Your task to perform on an android device: delete the emails in spam in the gmail app Image 0: 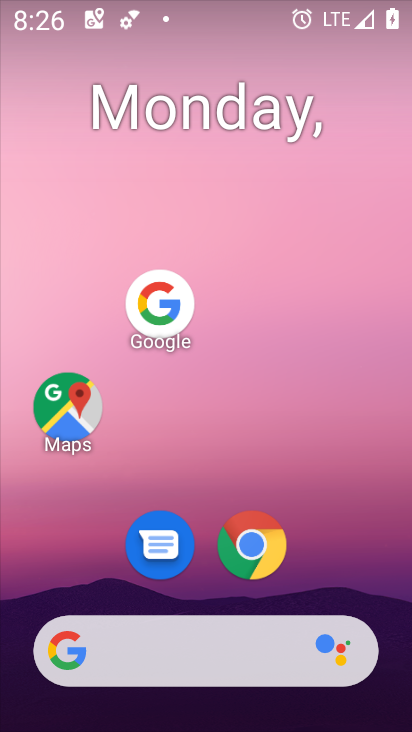
Step 0: drag from (167, 666) to (323, 167)
Your task to perform on an android device: delete the emails in spam in the gmail app Image 1: 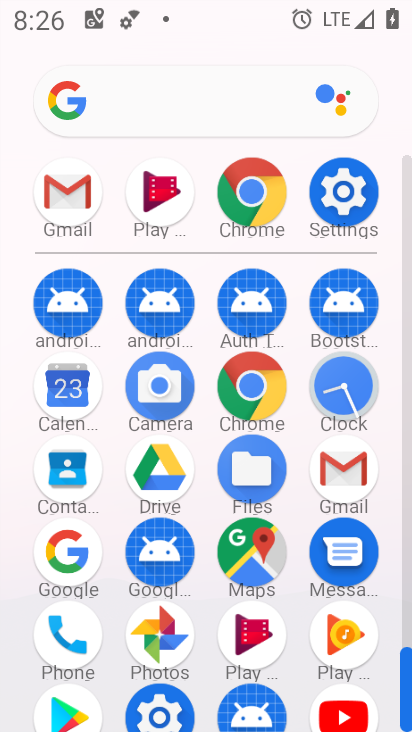
Step 1: click (75, 190)
Your task to perform on an android device: delete the emails in spam in the gmail app Image 2: 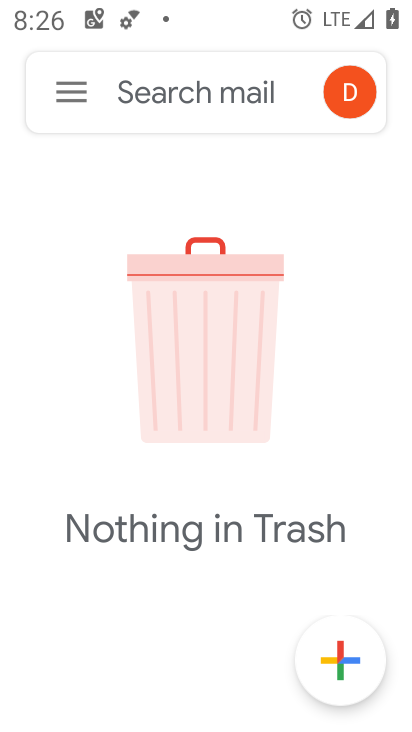
Step 2: click (71, 92)
Your task to perform on an android device: delete the emails in spam in the gmail app Image 3: 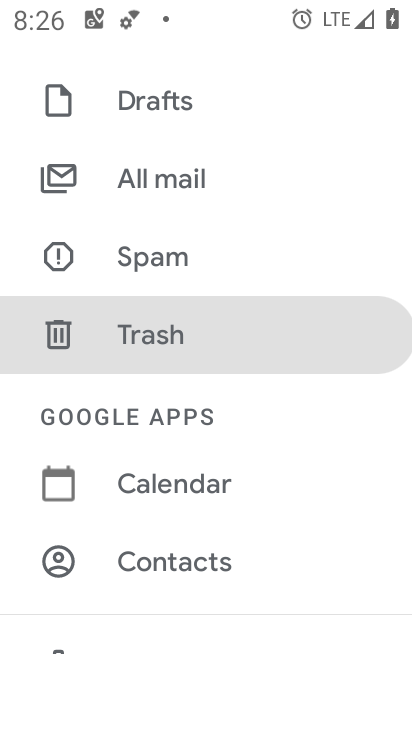
Step 3: click (146, 257)
Your task to perform on an android device: delete the emails in spam in the gmail app Image 4: 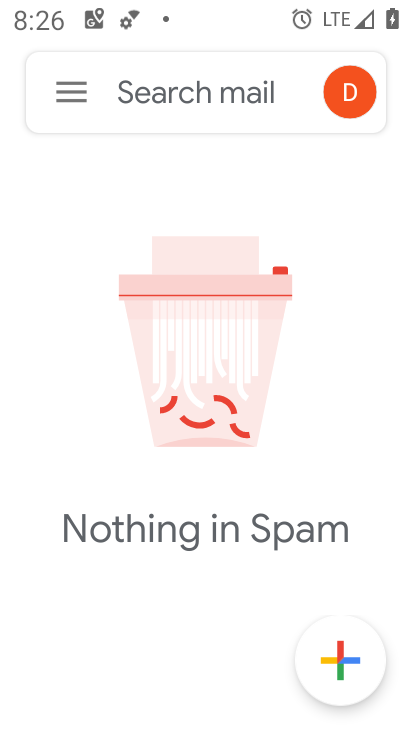
Step 4: task complete